Your task to perform on an android device: turn off translation in the chrome app Image 0: 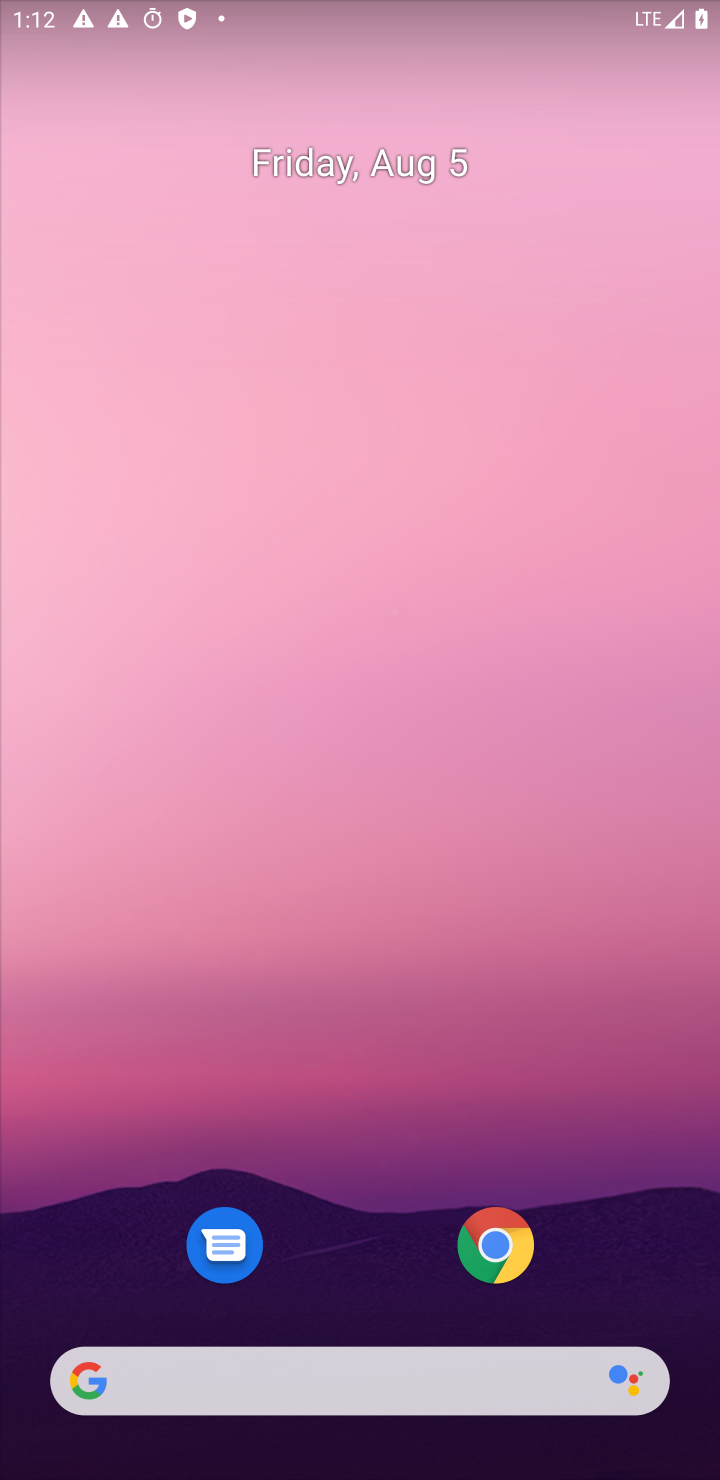
Step 0: press home button
Your task to perform on an android device: turn off translation in the chrome app Image 1: 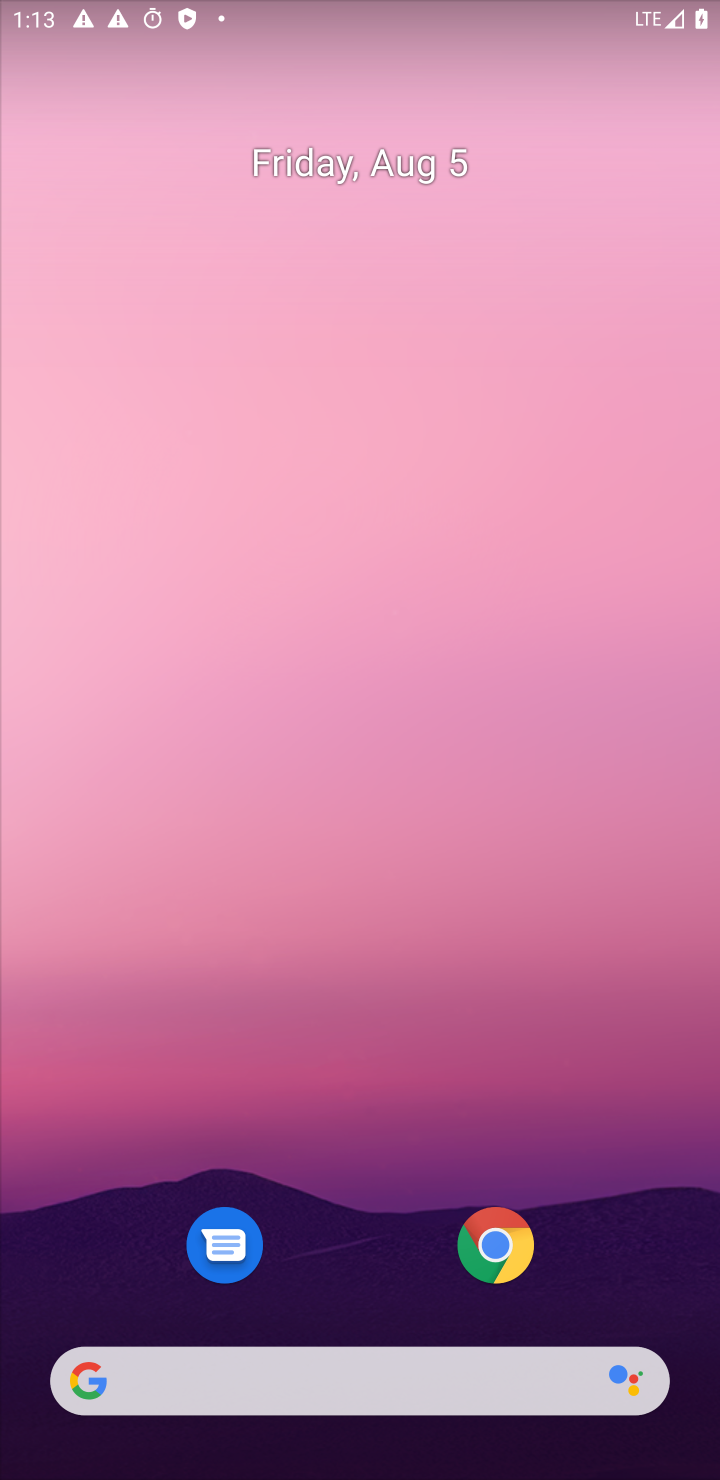
Step 1: drag from (278, 635) to (240, 66)
Your task to perform on an android device: turn off translation in the chrome app Image 2: 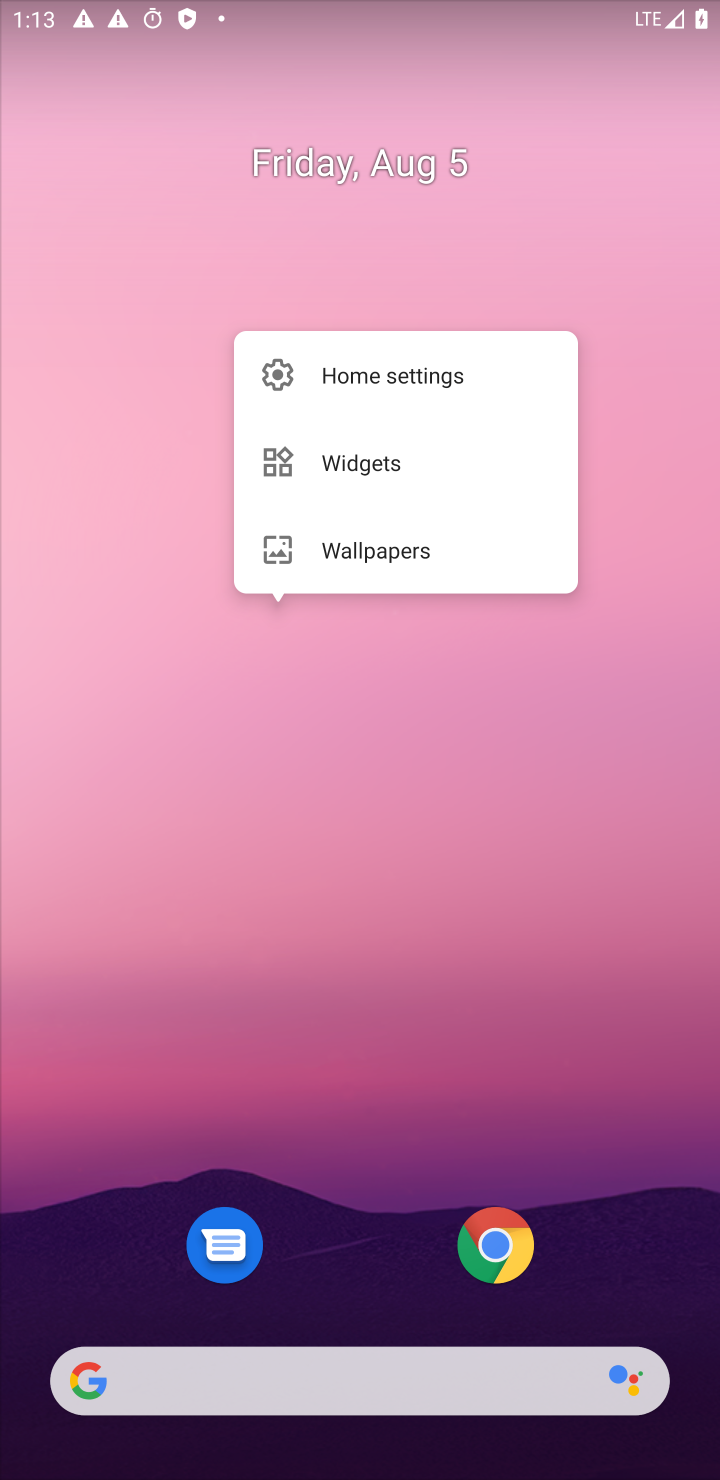
Step 2: drag from (436, 1260) to (408, 192)
Your task to perform on an android device: turn off translation in the chrome app Image 3: 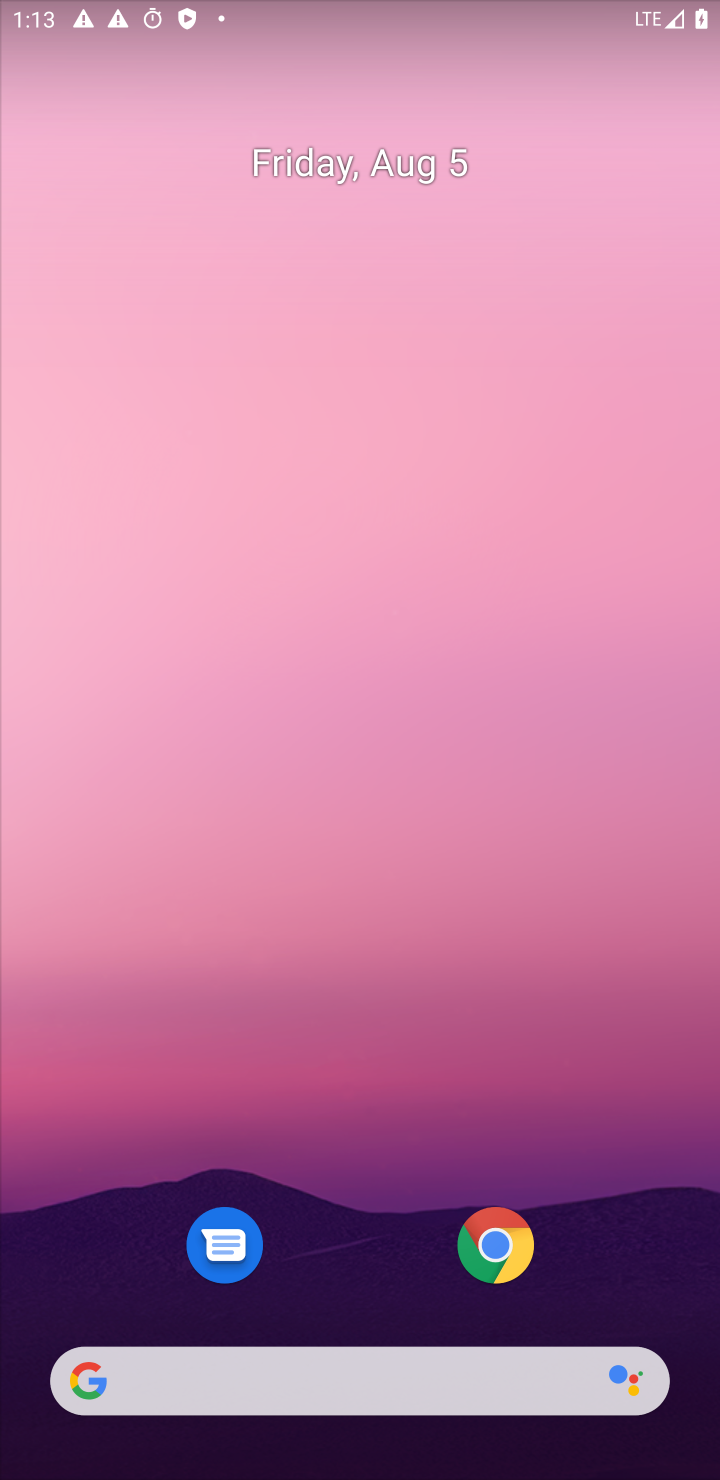
Step 3: drag from (397, 574) to (440, 247)
Your task to perform on an android device: turn off translation in the chrome app Image 4: 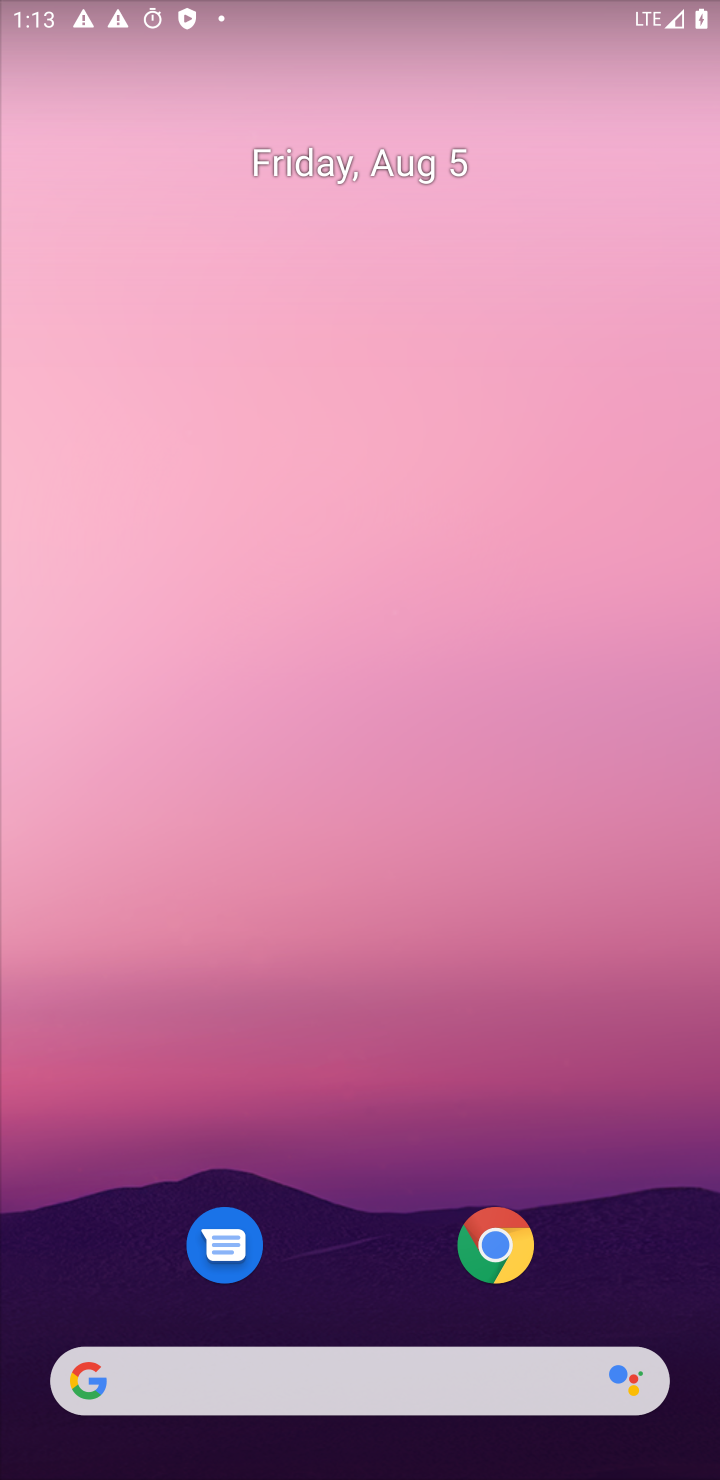
Step 4: click (498, 1259)
Your task to perform on an android device: turn off translation in the chrome app Image 5: 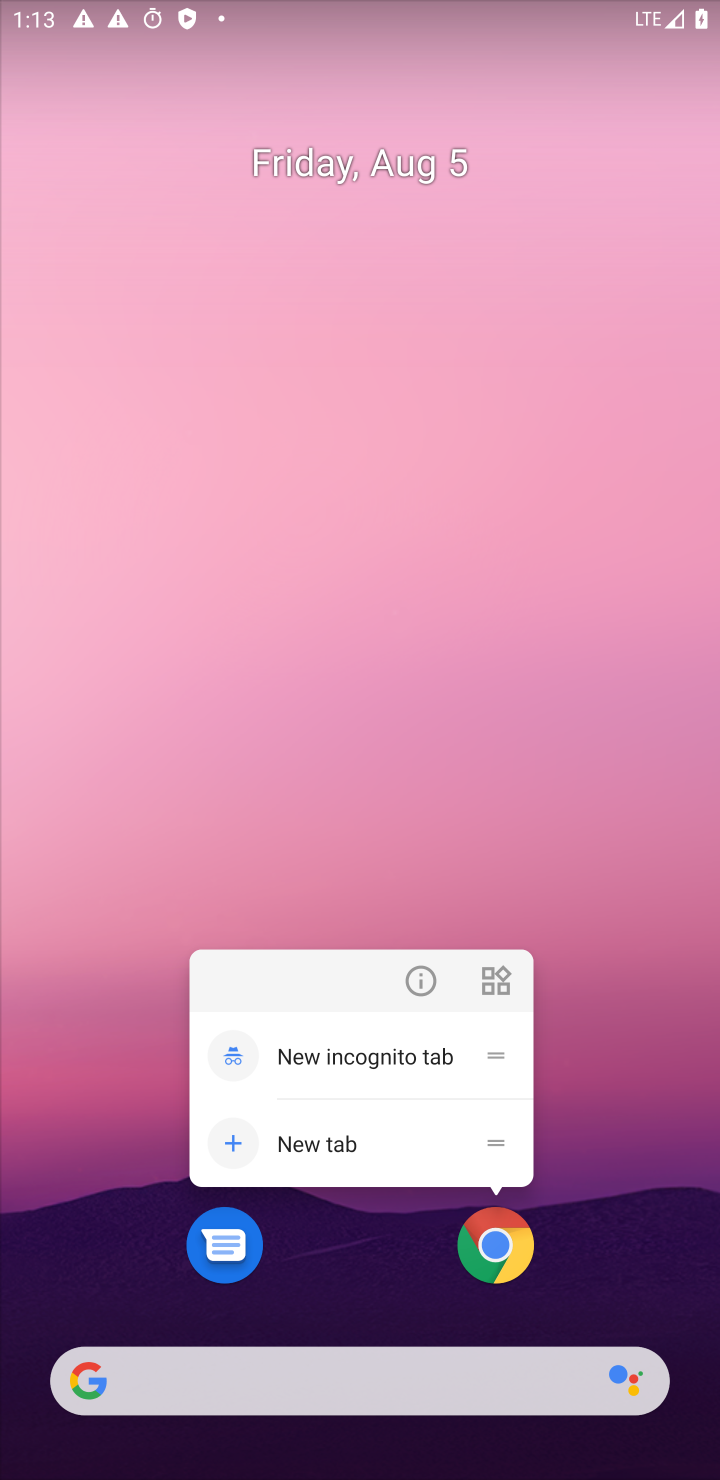
Step 5: click (417, 1281)
Your task to perform on an android device: turn off translation in the chrome app Image 6: 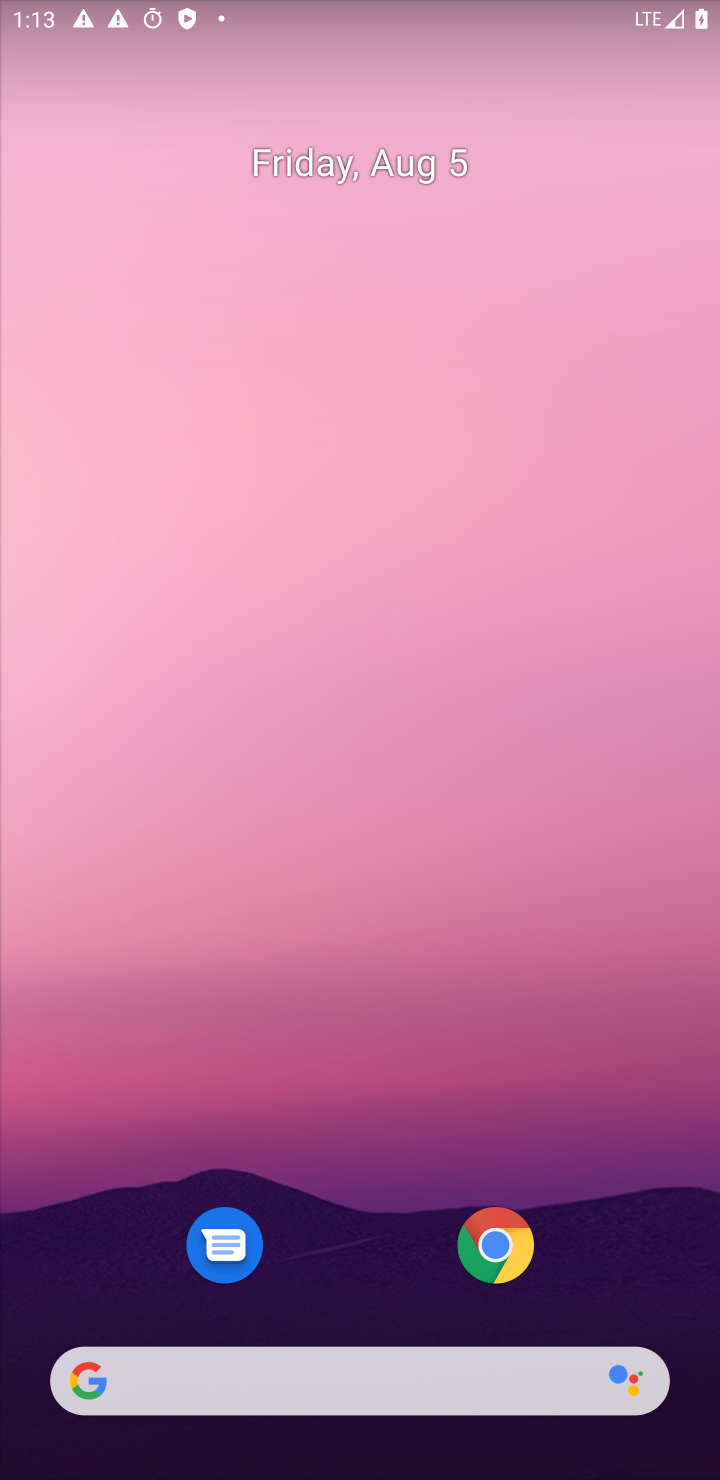
Step 6: click (527, 1237)
Your task to perform on an android device: turn off translation in the chrome app Image 7: 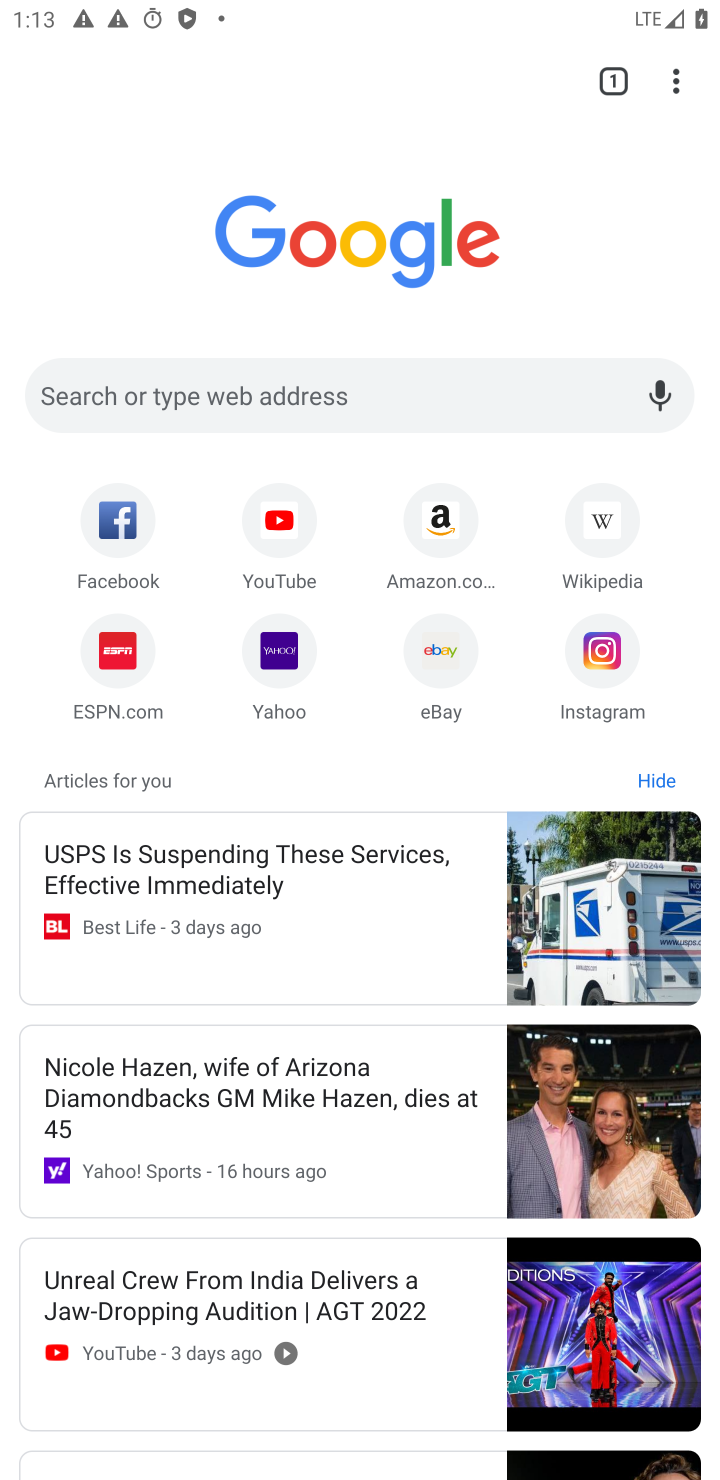
Step 7: click (658, 88)
Your task to perform on an android device: turn off translation in the chrome app Image 8: 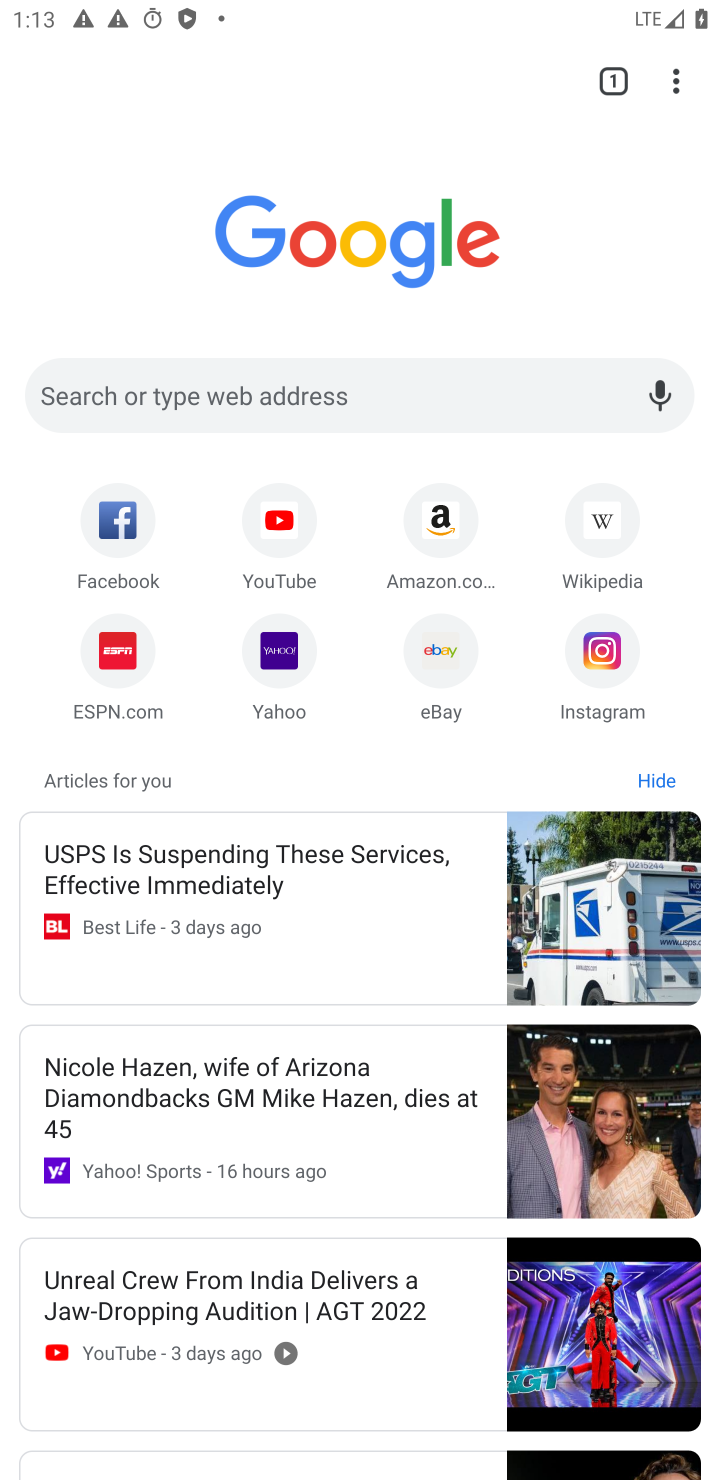
Step 8: click (687, 84)
Your task to perform on an android device: turn off translation in the chrome app Image 9: 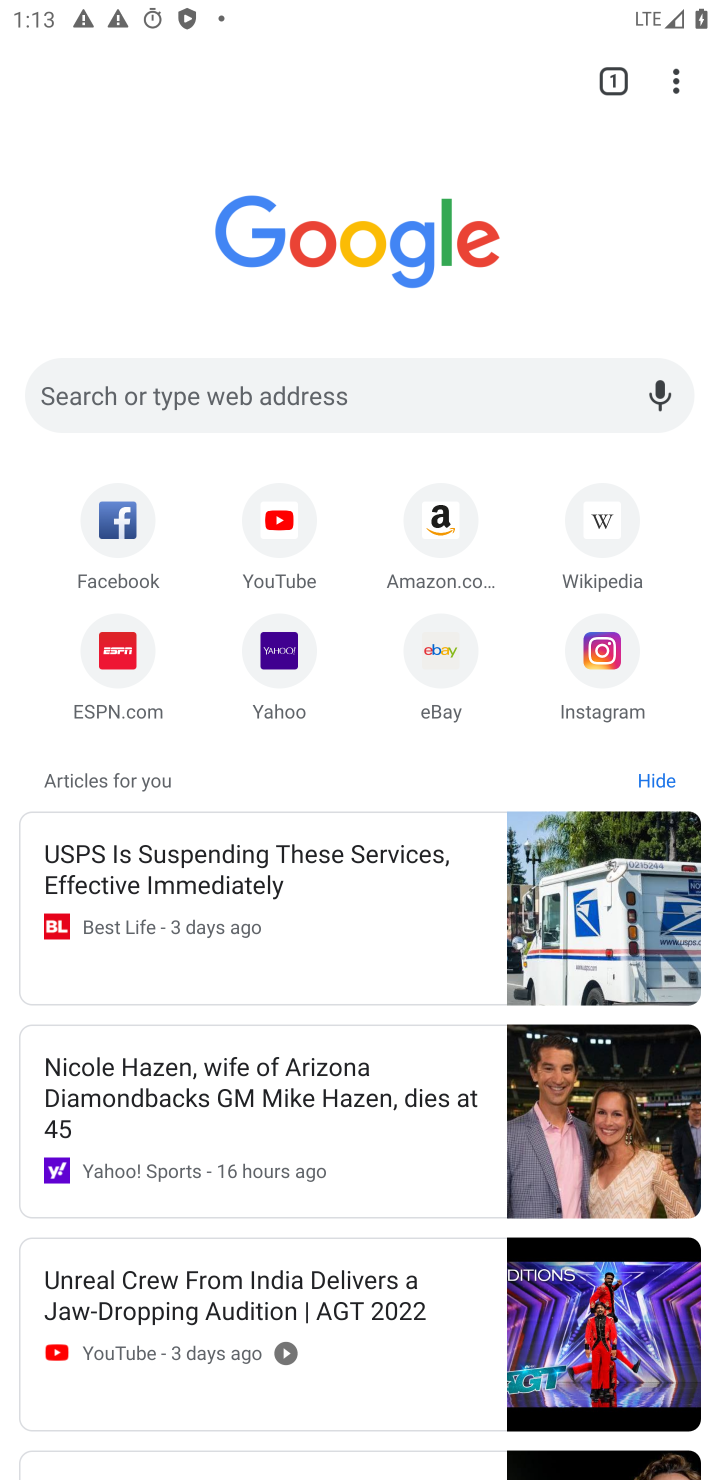
Step 9: click (667, 81)
Your task to perform on an android device: turn off translation in the chrome app Image 10: 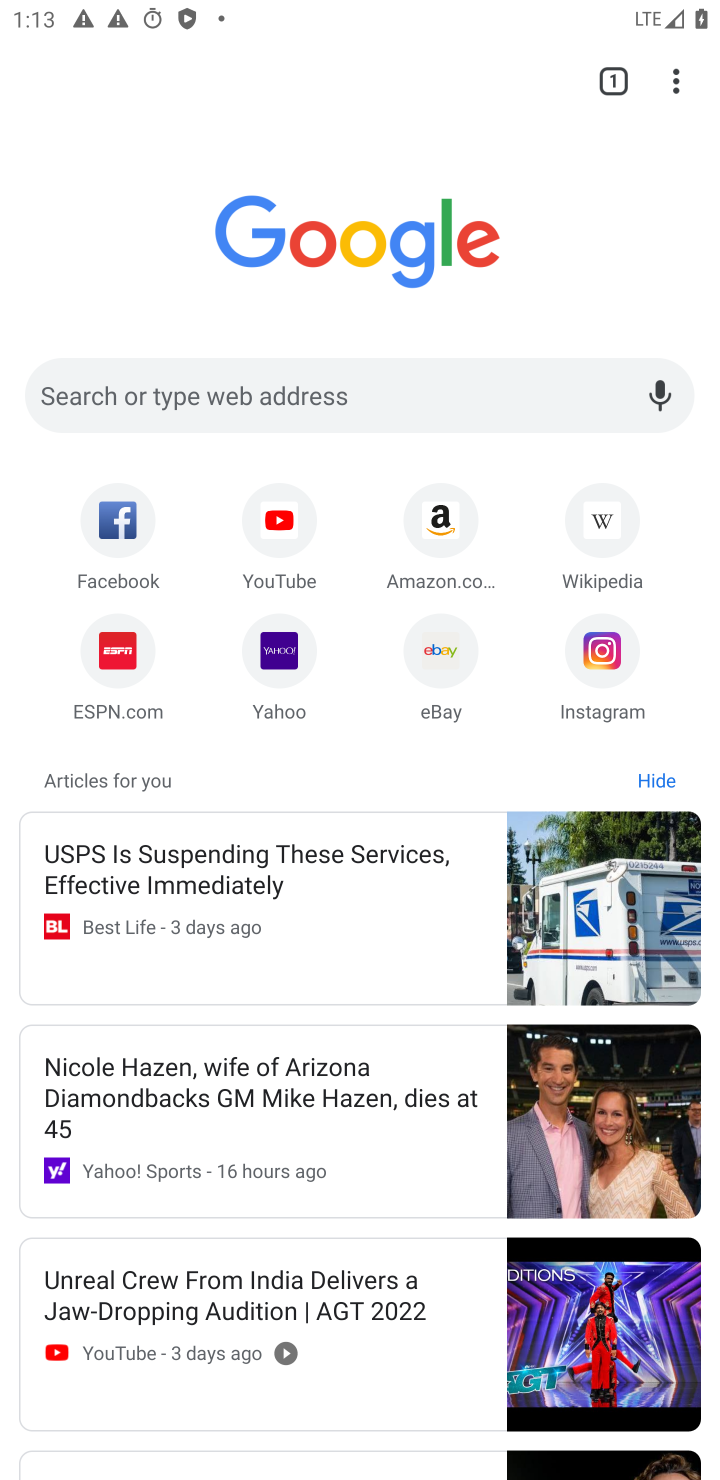
Step 10: click (677, 76)
Your task to perform on an android device: turn off translation in the chrome app Image 11: 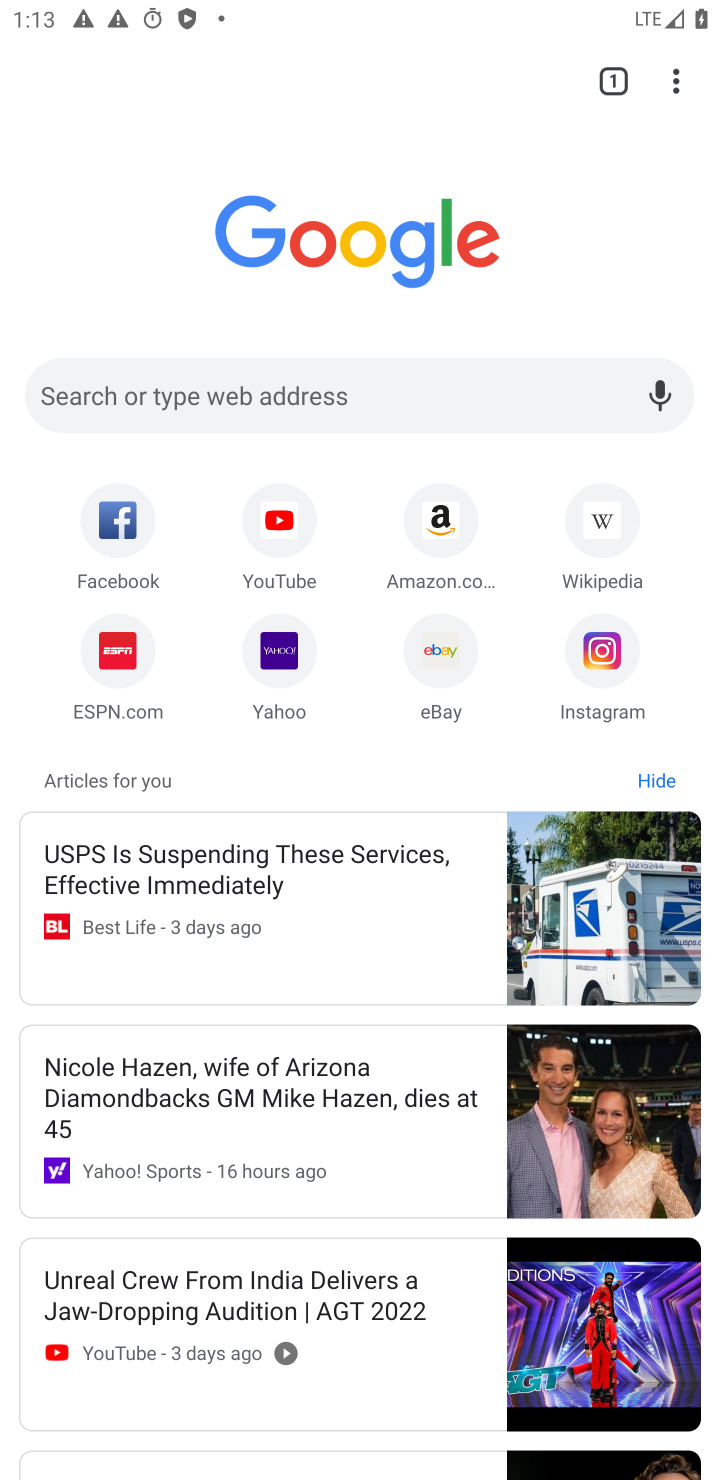
Step 11: drag from (674, 76) to (413, 779)
Your task to perform on an android device: turn off translation in the chrome app Image 12: 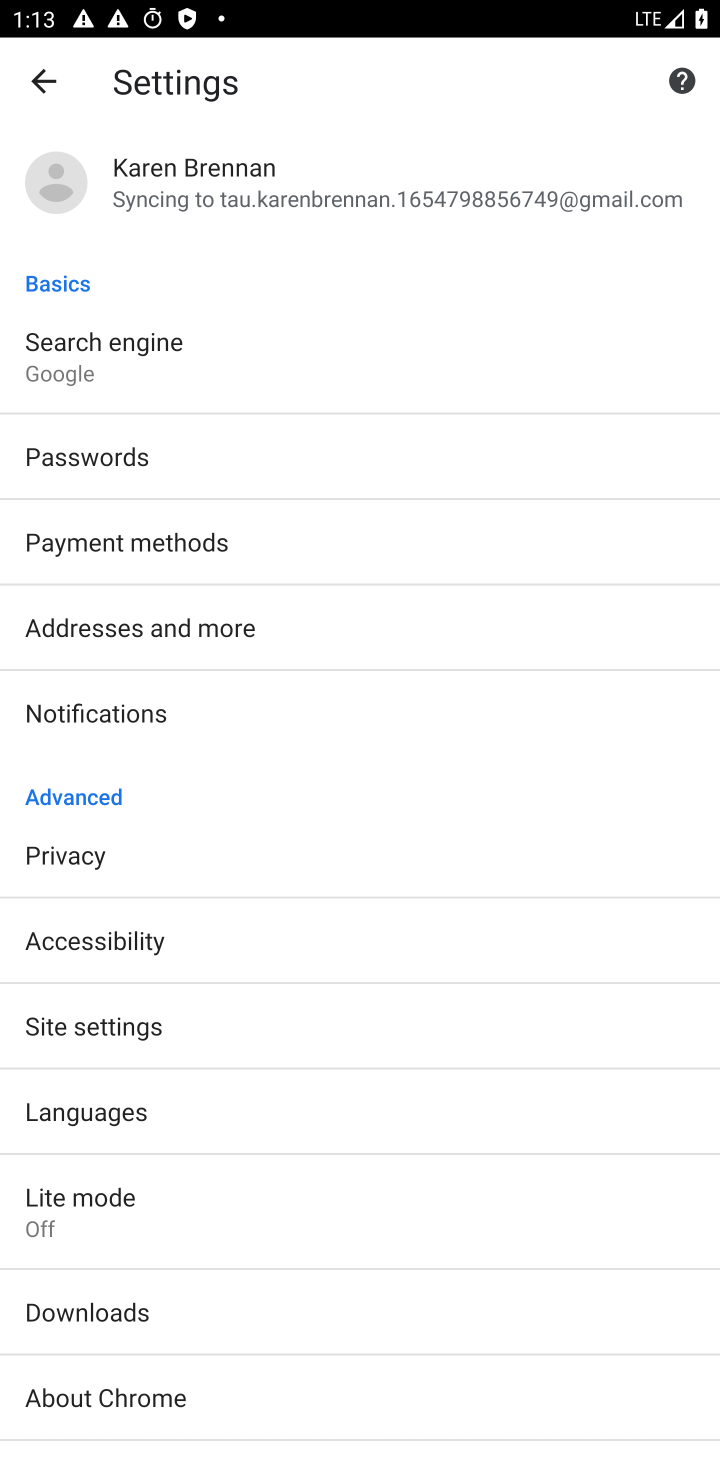
Step 12: click (89, 1116)
Your task to perform on an android device: turn off translation in the chrome app Image 13: 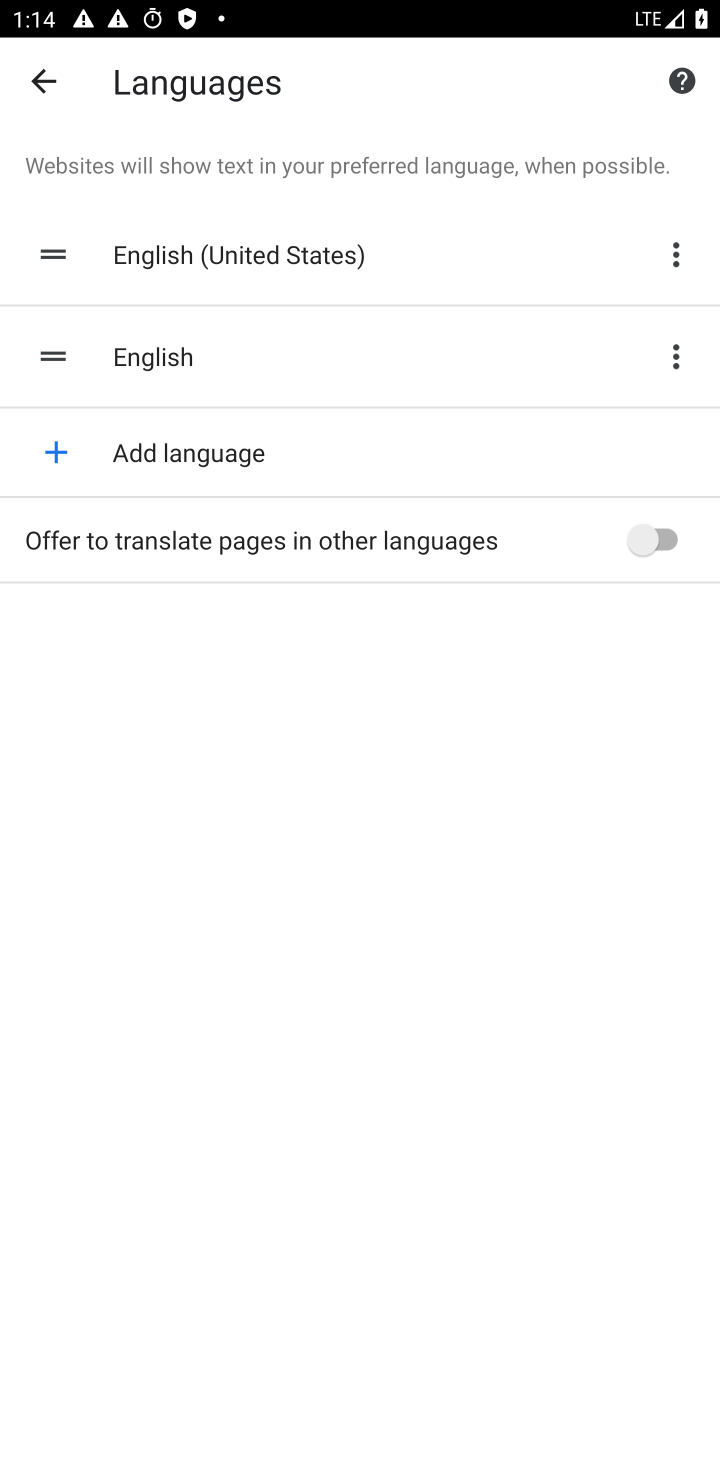
Step 13: task complete